Your task to perform on an android device: Open Google Image 0: 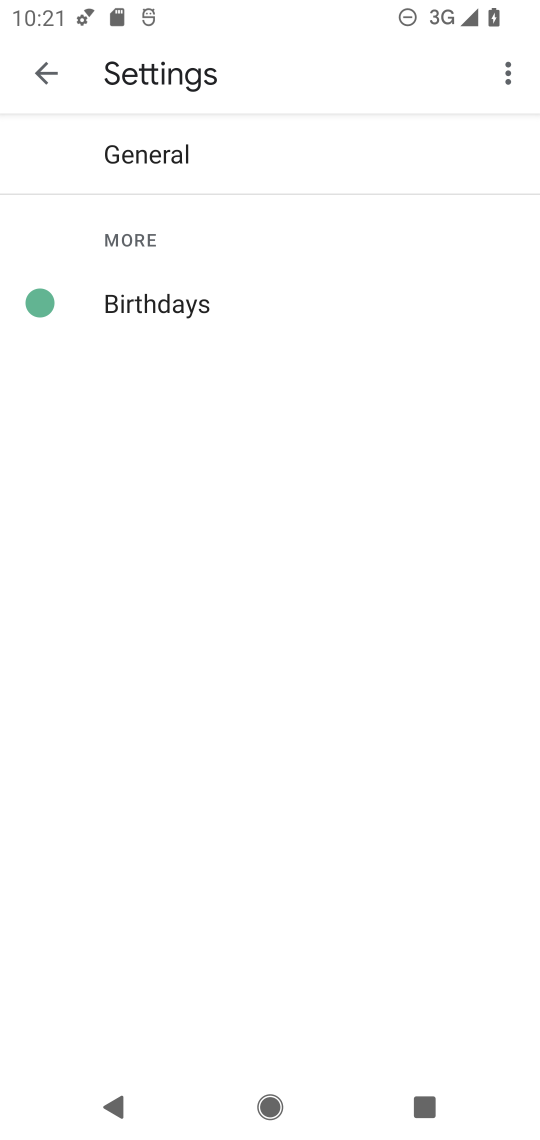
Step 0: press home button
Your task to perform on an android device: Open Google Image 1: 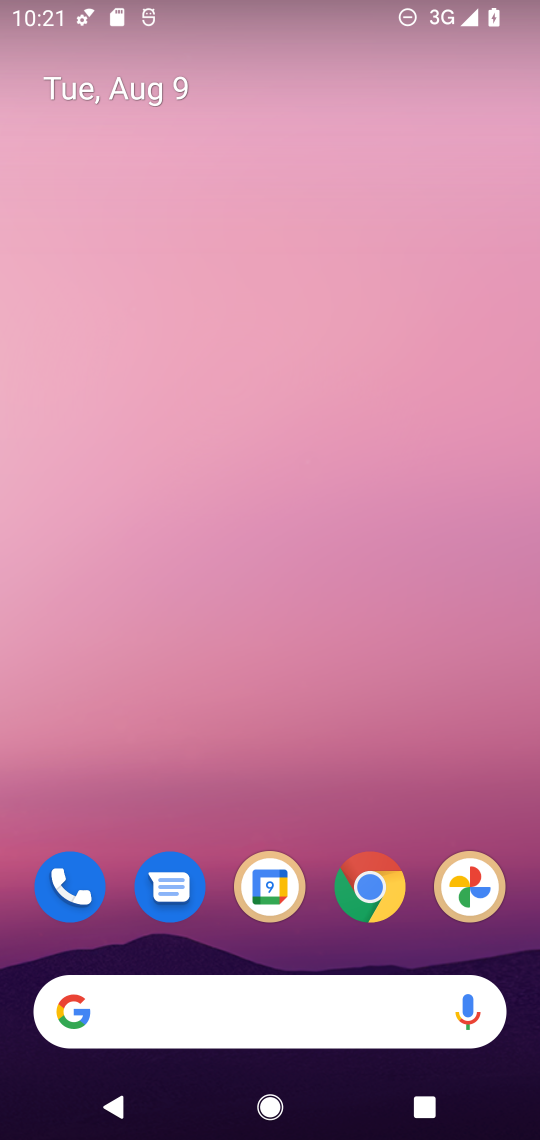
Step 1: drag from (284, 793) to (284, 182)
Your task to perform on an android device: Open Google Image 2: 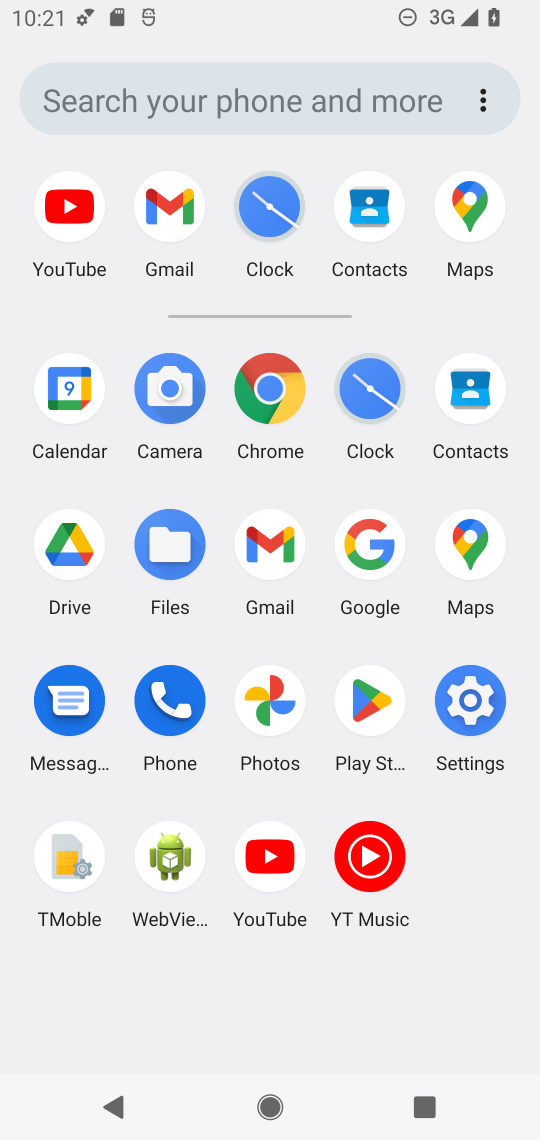
Step 2: click (394, 568)
Your task to perform on an android device: Open Google Image 3: 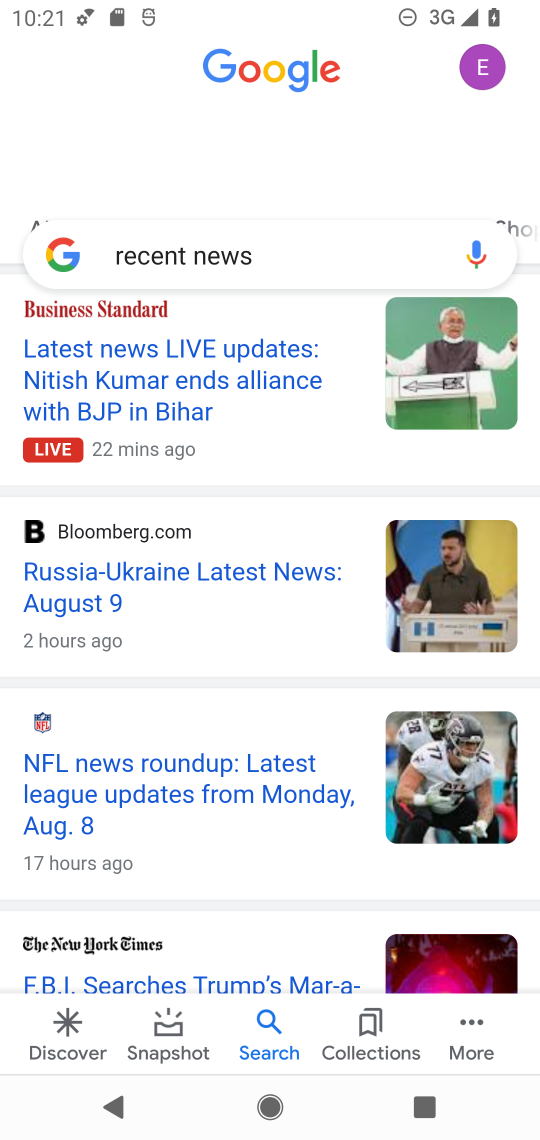
Step 3: task complete